Your task to perform on an android device: Open location settings Image 0: 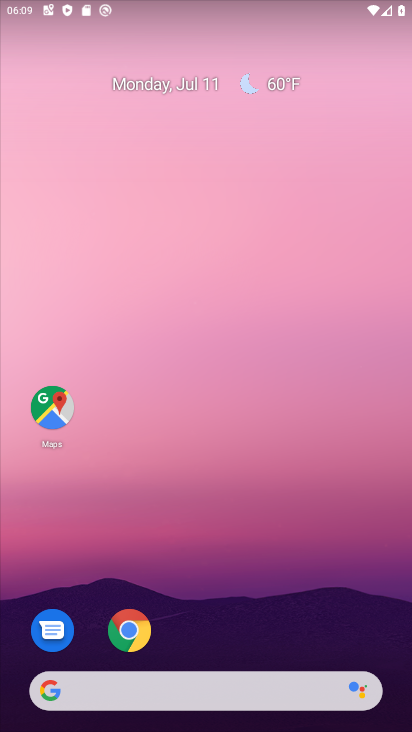
Step 0: drag from (192, 563) to (205, 202)
Your task to perform on an android device: Open location settings Image 1: 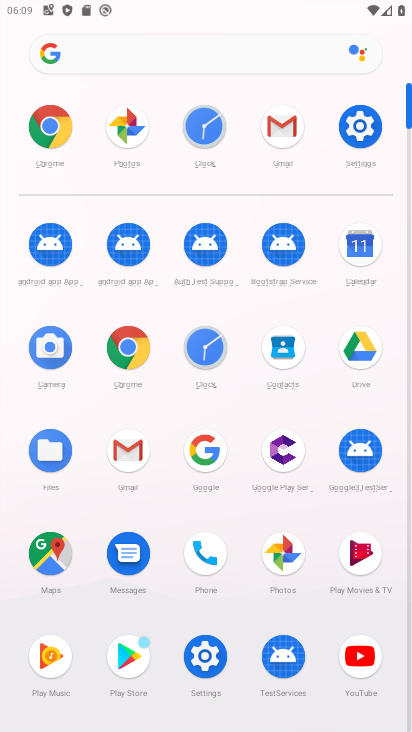
Step 1: click (352, 117)
Your task to perform on an android device: Open location settings Image 2: 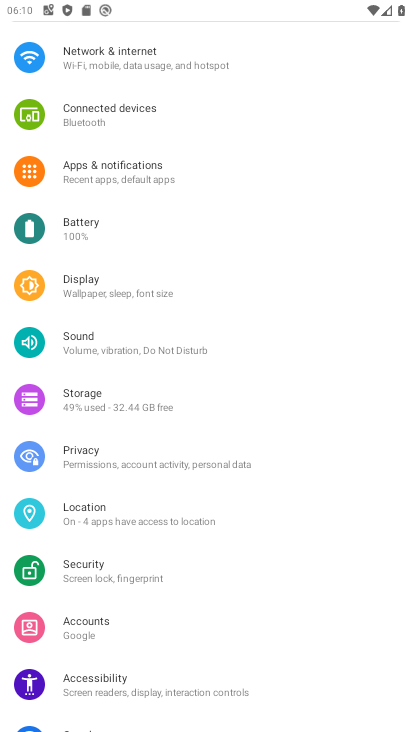
Step 2: click (87, 525)
Your task to perform on an android device: Open location settings Image 3: 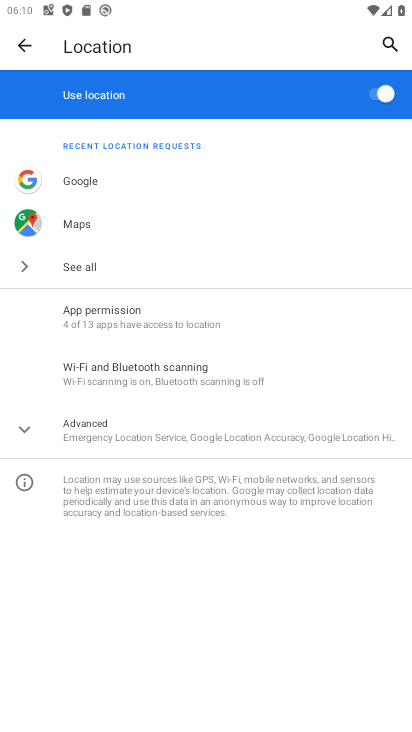
Step 3: task complete